Your task to perform on an android device: Do I have any events today? Image 0: 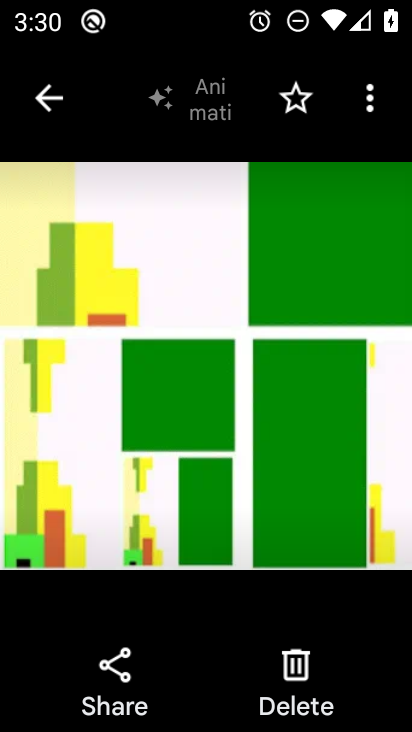
Step 0: press home button
Your task to perform on an android device: Do I have any events today? Image 1: 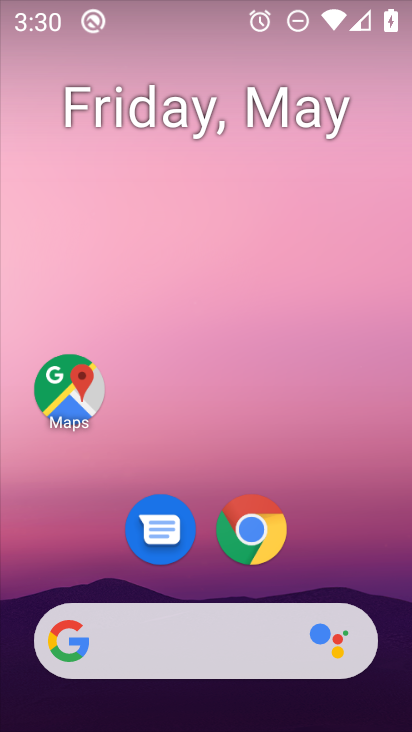
Step 1: drag from (16, 281) to (411, 295)
Your task to perform on an android device: Do I have any events today? Image 2: 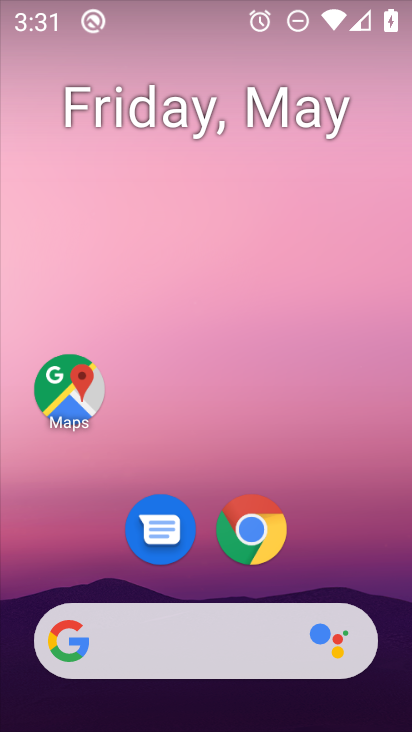
Step 2: drag from (399, 684) to (373, 155)
Your task to perform on an android device: Do I have any events today? Image 3: 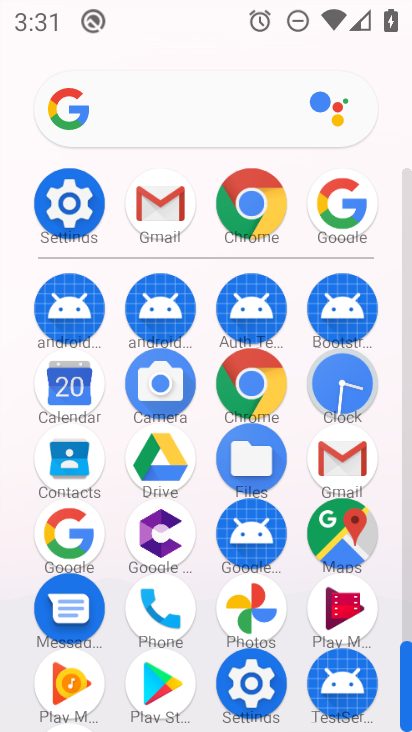
Step 3: click (59, 403)
Your task to perform on an android device: Do I have any events today? Image 4: 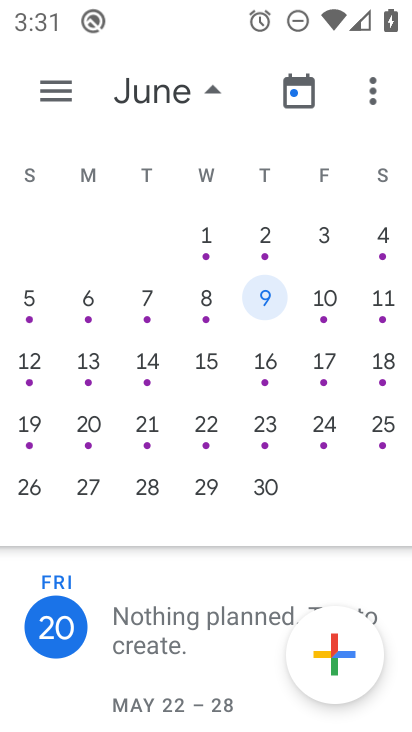
Step 4: click (53, 91)
Your task to perform on an android device: Do I have any events today? Image 5: 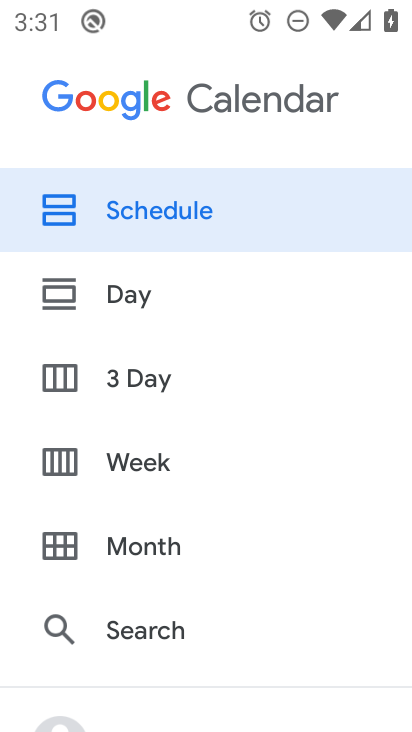
Step 5: click (115, 301)
Your task to perform on an android device: Do I have any events today? Image 6: 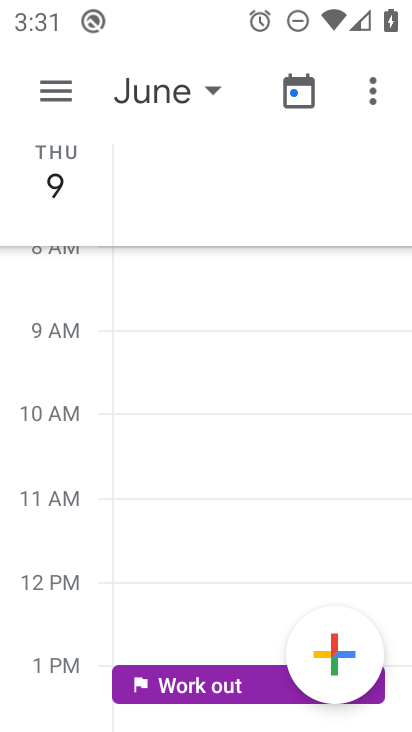
Step 6: click (204, 92)
Your task to perform on an android device: Do I have any events today? Image 7: 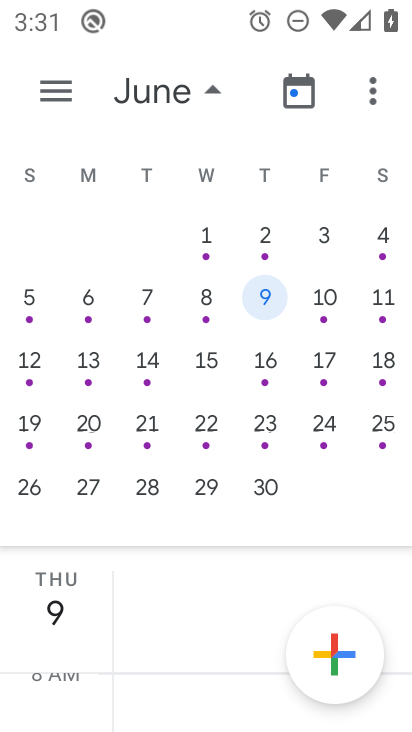
Step 7: drag from (6, 219) to (383, 205)
Your task to perform on an android device: Do I have any events today? Image 8: 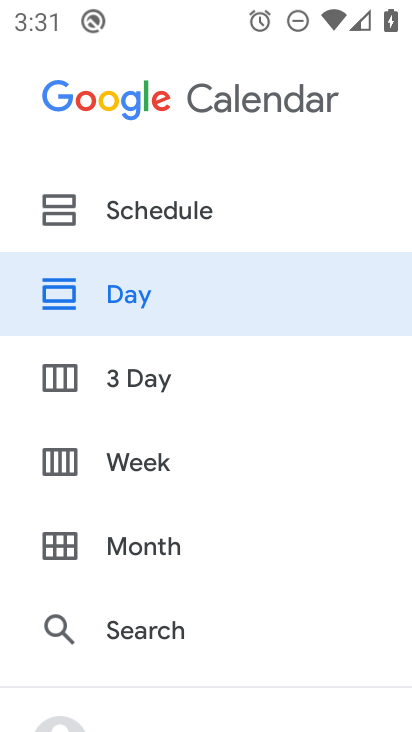
Step 8: press back button
Your task to perform on an android device: Do I have any events today? Image 9: 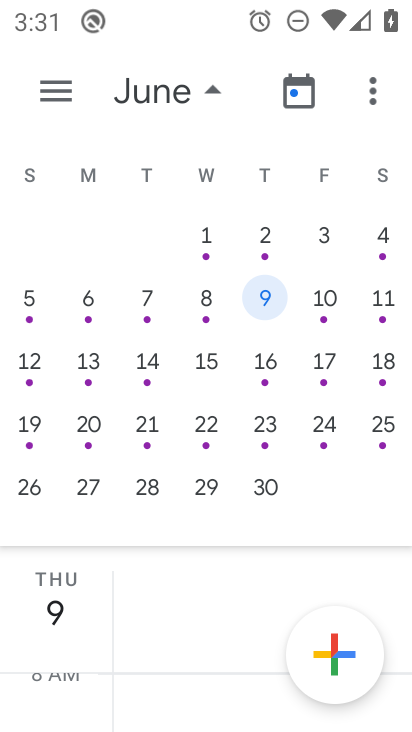
Step 9: drag from (77, 234) to (401, 222)
Your task to perform on an android device: Do I have any events today? Image 10: 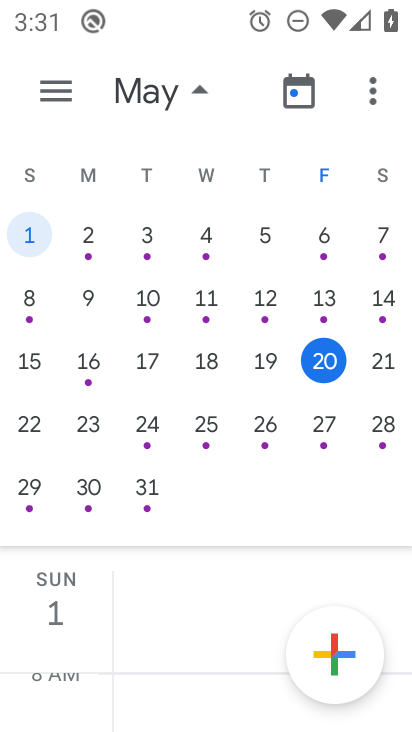
Step 10: click (312, 359)
Your task to perform on an android device: Do I have any events today? Image 11: 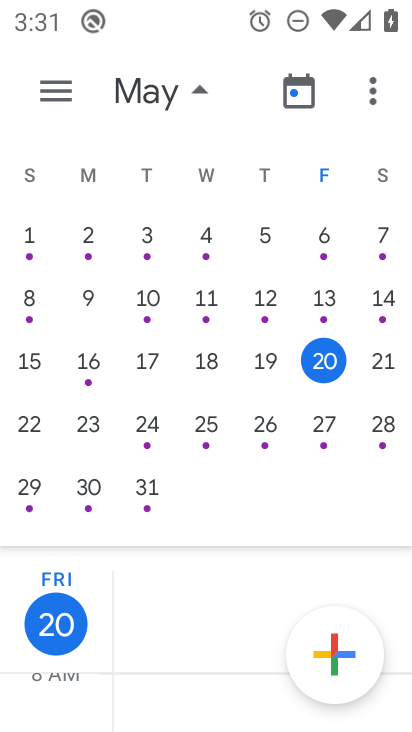
Step 11: click (43, 89)
Your task to perform on an android device: Do I have any events today? Image 12: 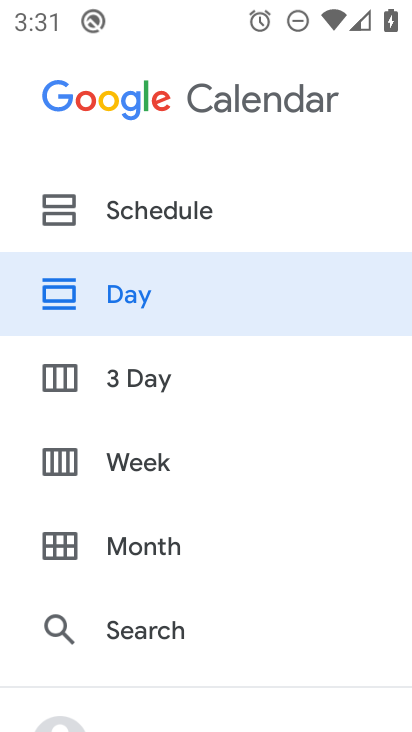
Step 12: click (129, 289)
Your task to perform on an android device: Do I have any events today? Image 13: 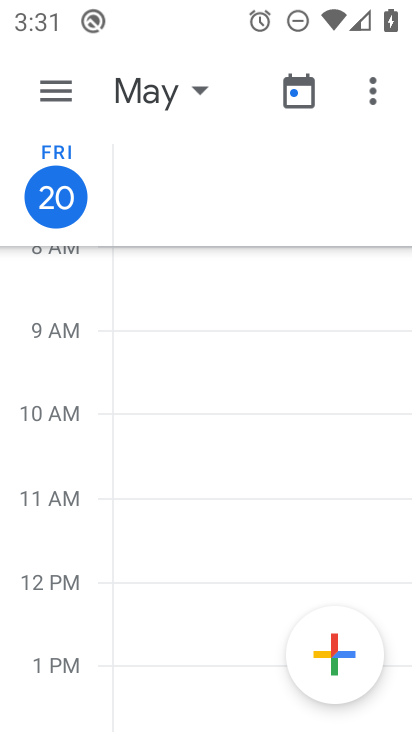
Step 13: task complete